Your task to perform on an android device: turn off improve location accuracy Image 0: 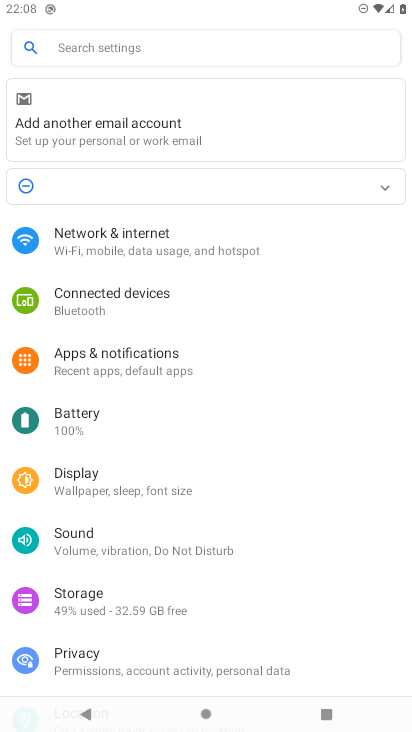
Step 0: drag from (240, 661) to (275, 350)
Your task to perform on an android device: turn off improve location accuracy Image 1: 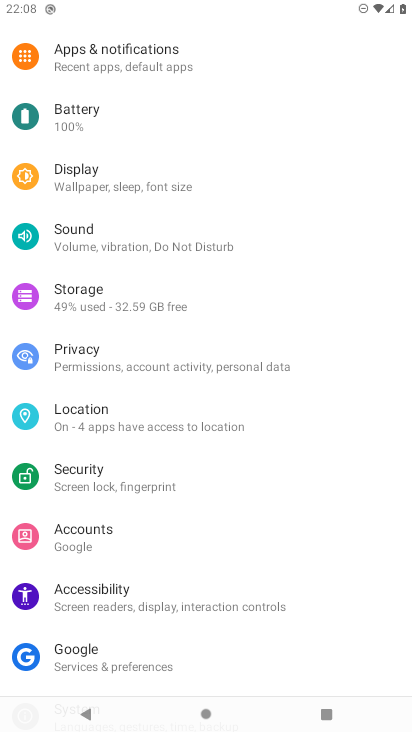
Step 1: click (143, 414)
Your task to perform on an android device: turn off improve location accuracy Image 2: 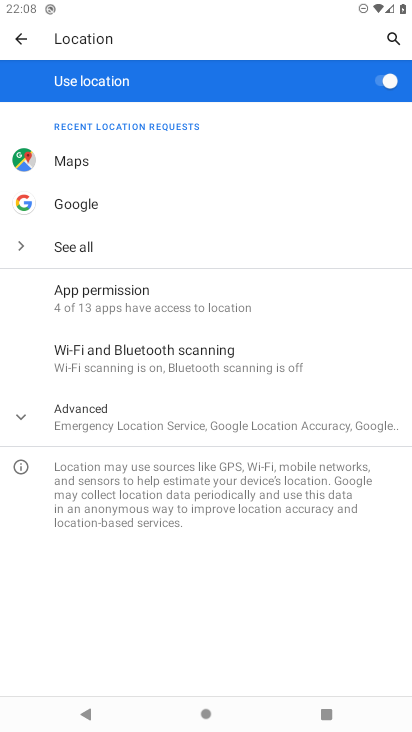
Step 2: click (100, 408)
Your task to perform on an android device: turn off improve location accuracy Image 3: 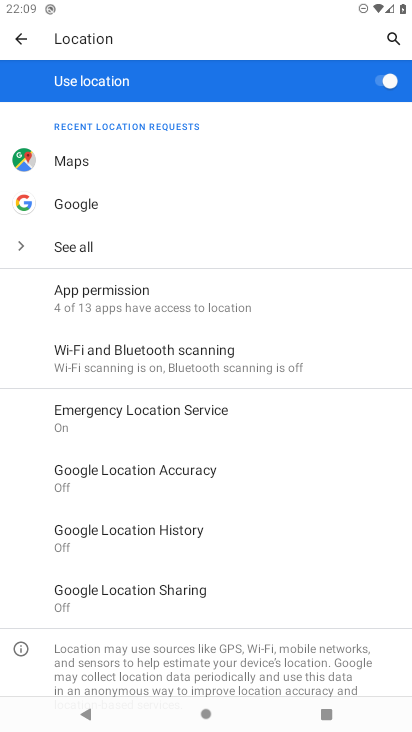
Step 3: task complete